Your task to perform on an android device: Go to privacy settings Image 0: 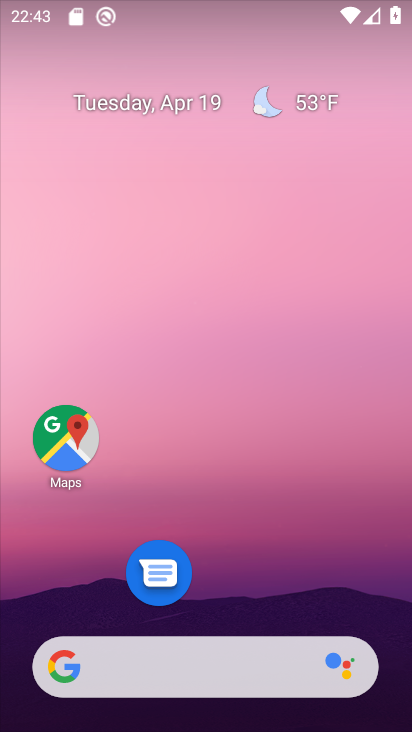
Step 0: drag from (226, 601) to (235, 35)
Your task to perform on an android device: Go to privacy settings Image 1: 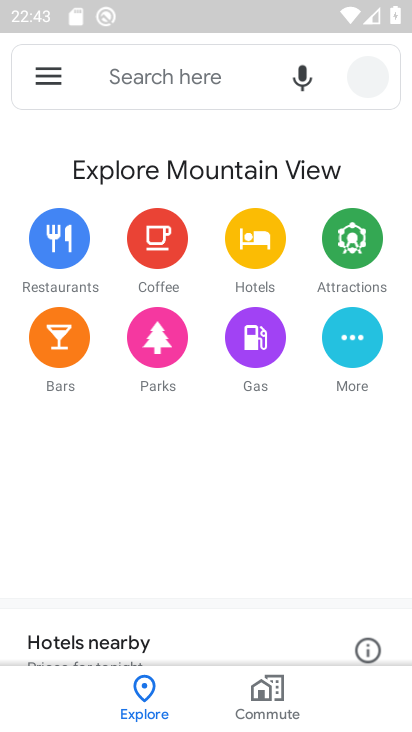
Step 1: press home button
Your task to perform on an android device: Go to privacy settings Image 2: 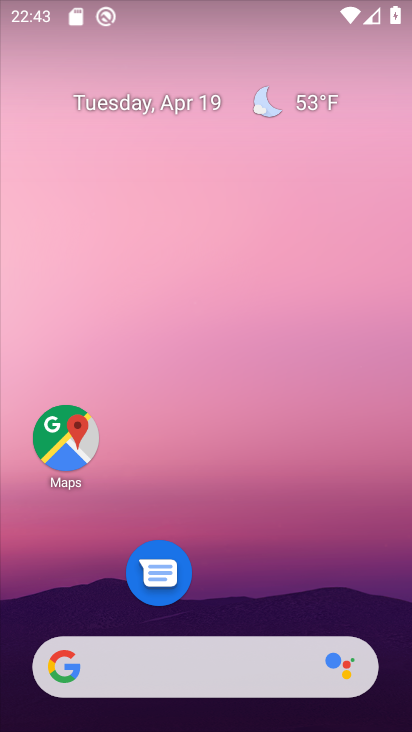
Step 2: drag from (250, 374) to (257, 287)
Your task to perform on an android device: Go to privacy settings Image 3: 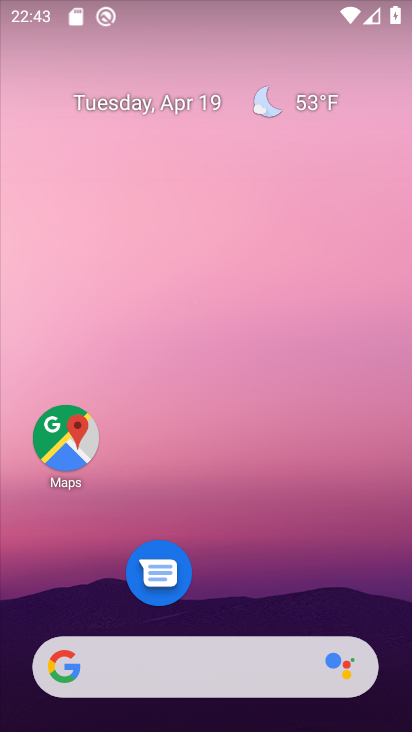
Step 3: drag from (246, 610) to (245, 63)
Your task to perform on an android device: Go to privacy settings Image 4: 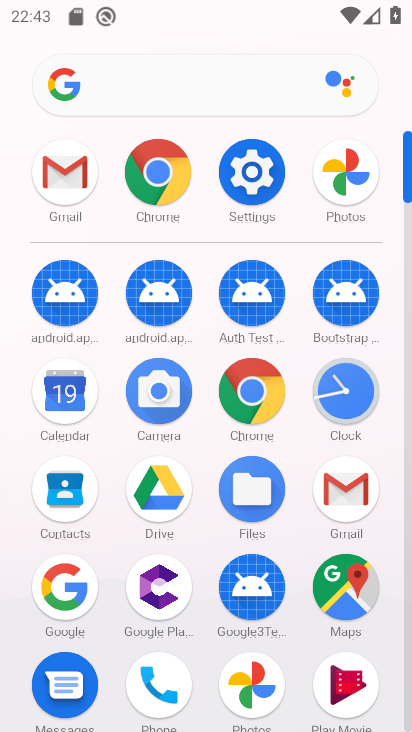
Step 4: click (250, 167)
Your task to perform on an android device: Go to privacy settings Image 5: 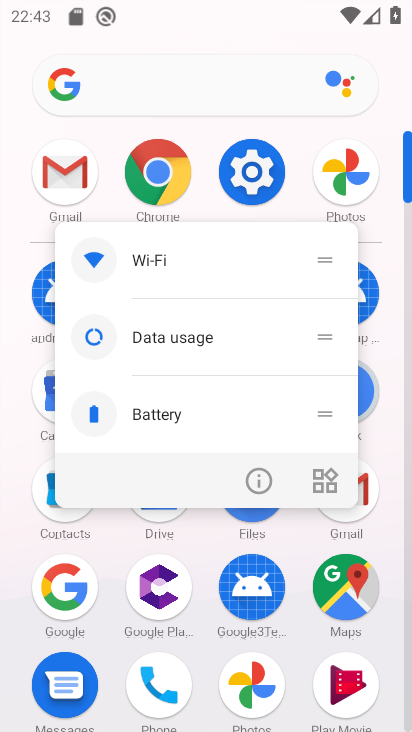
Step 5: click (249, 163)
Your task to perform on an android device: Go to privacy settings Image 6: 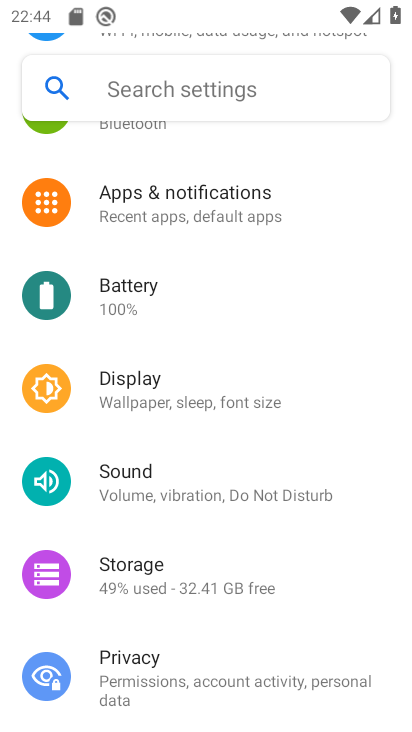
Step 6: click (170, 651)
Your task to perform on an android device: Go to privacy settings Image 7: 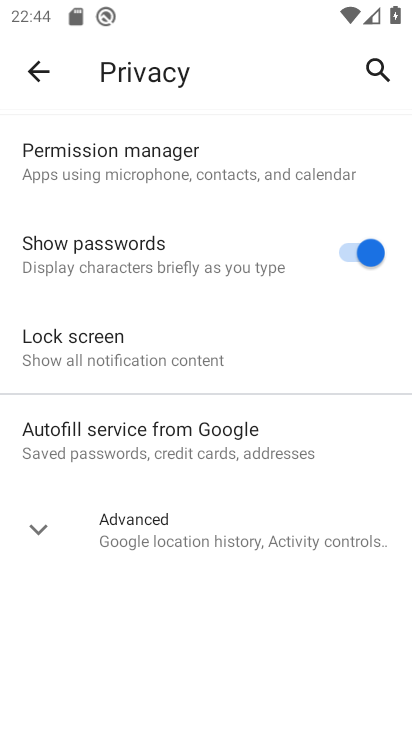
Step 7: click (36, 519)
Your task to perform on an android device: Go to privacy settings Image 8: 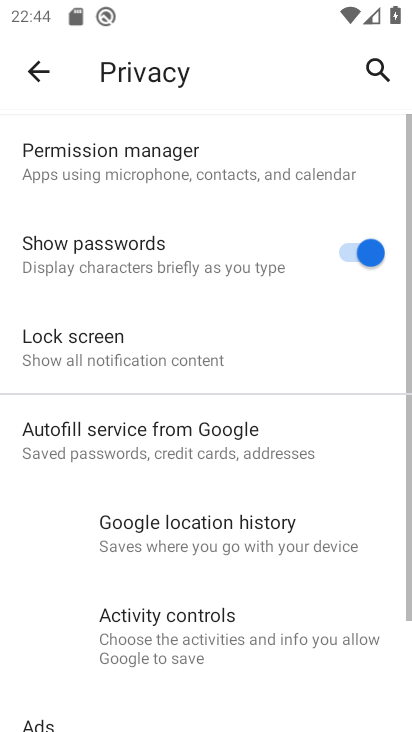
Step 8: task complete